Your task to perform on an android device: set the timer Image 0: 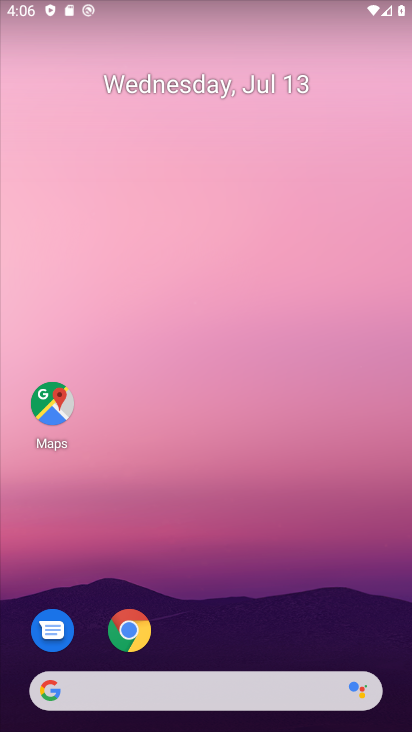
Step 0: drag from (257, 615) to (294, 146)
Your task to perform on an android device: set the timer Image 1: 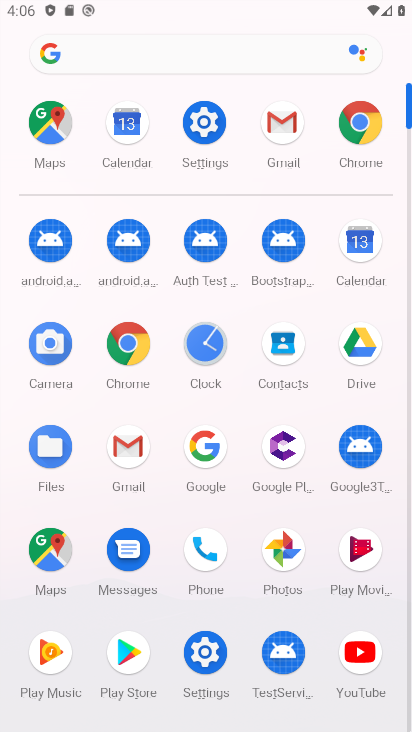
Step 1: click (212, 356)
Your task to perform on an android device: set the timer Image 2: 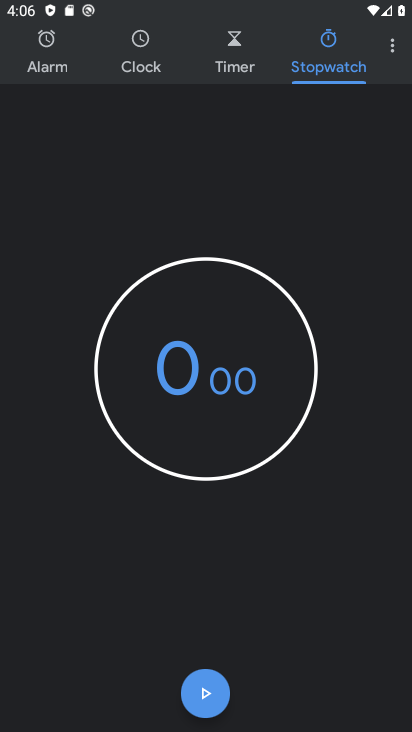
Step 2: click (238, 43)
Your task to perform on an android device: set the timer Image 3: 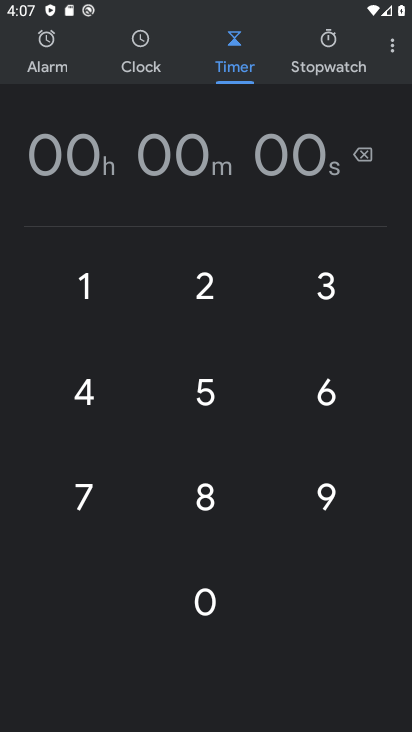
Step 3: click (93, 286)
Your task to perform on an android device: set the timer Image 4: 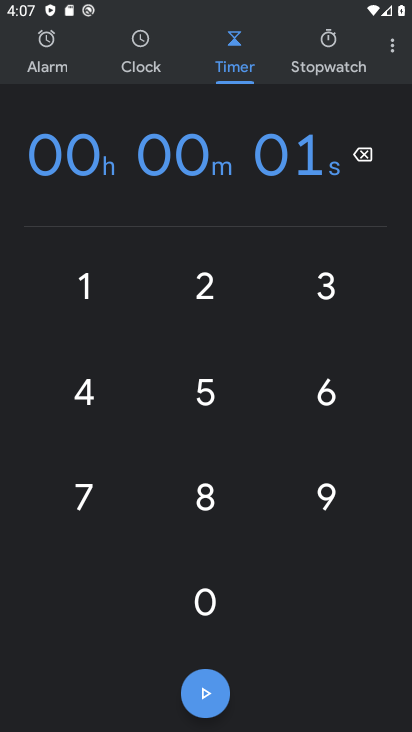
Step 4: click (208, 287)
Your task to perform on an android device: set the timer Image 5: 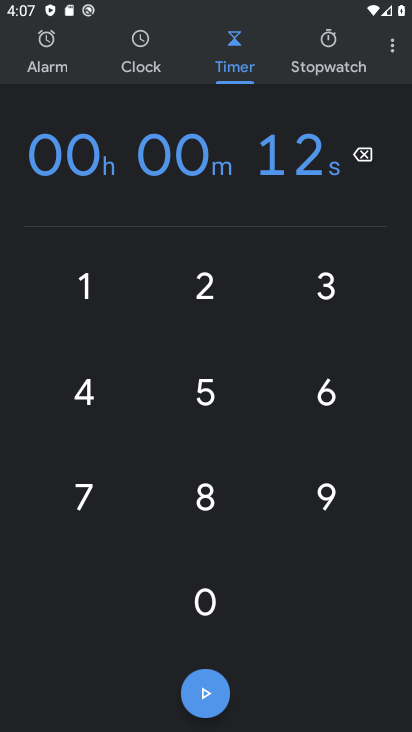
Step 5: click (210, 376)
Your task to perform on an android device: set the timer Image 6: 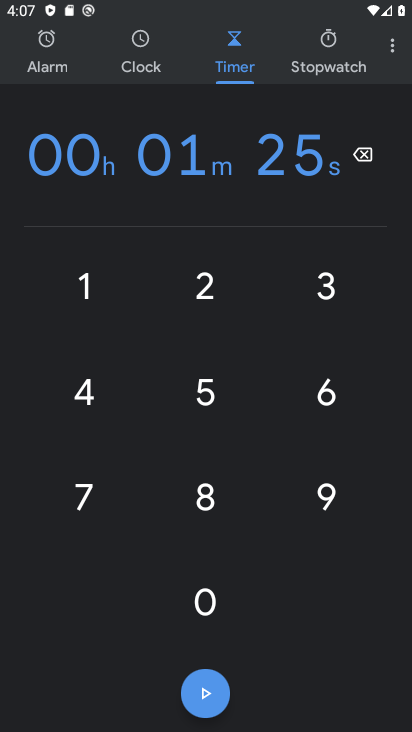
Step 6: click (197, 363)
Your task to perform on an android device: set the timer Image 7: 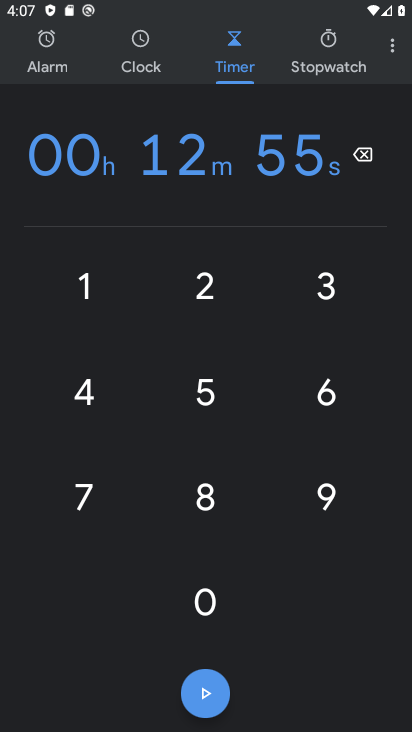
Step 7: click (312, 485)
Your task to perform on an android device: set the timer Image 8: 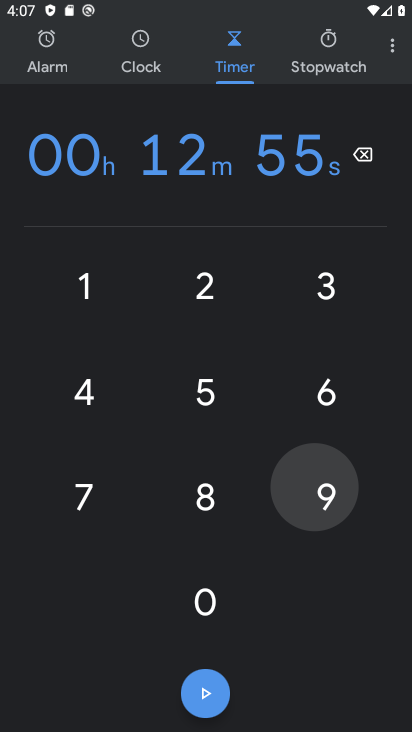
Step 8: click (312, 485)
Your task to perform on an android device: set the timer Image 9: 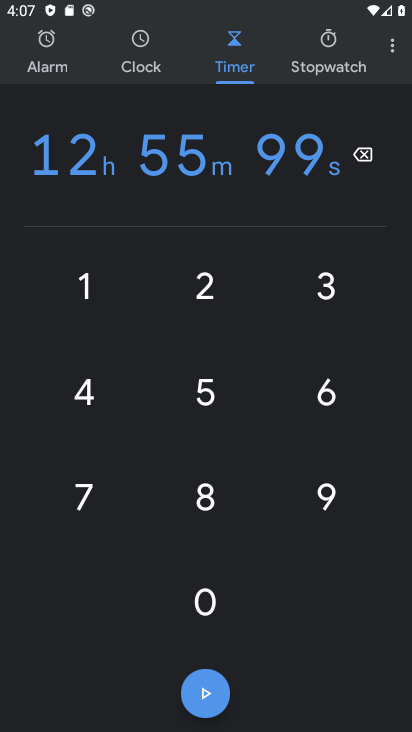
Step 9: click (210, 691)
Your task to perform on an android device: set the timer Image 10: 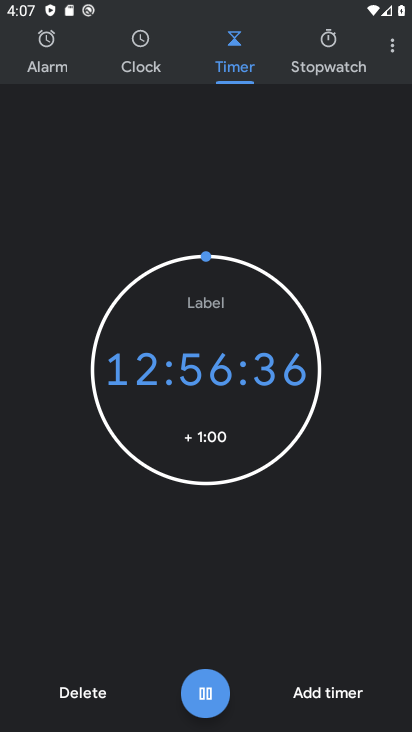
Step 10: task complete